Your task to perform on an android device: change keyboard looks Image 0: 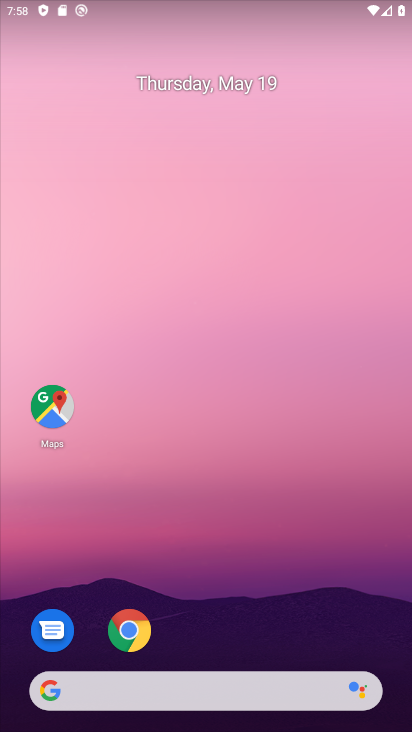
Step 0: drag from (391, 633) to (334, 126)
Your task to perform on an android device: change keyboard looks Image 1: 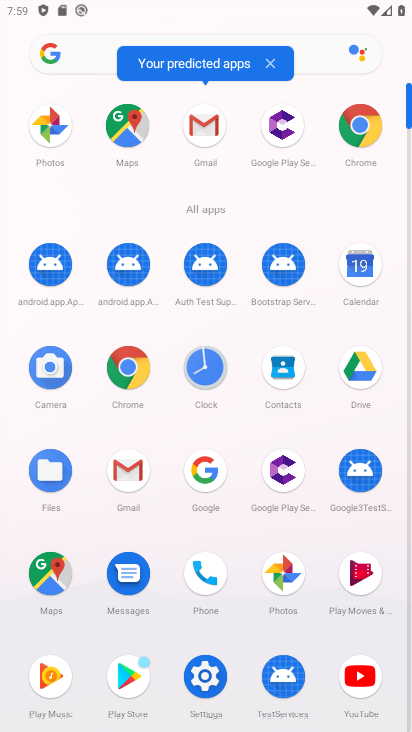
Step 1: click (207, 677)
Your task to perform on an android device: change keyboard looks Image 2: 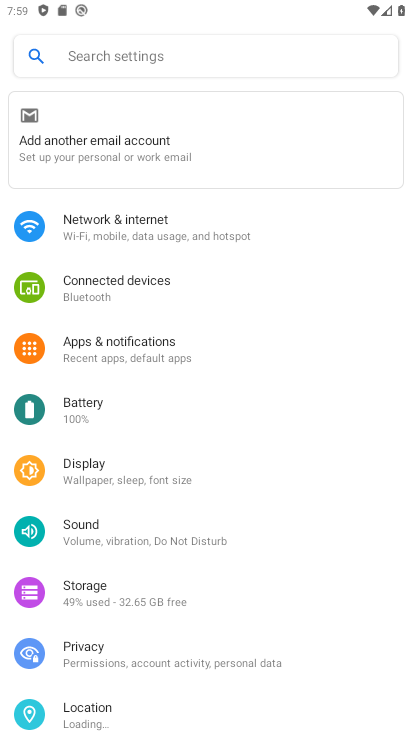
Step 2: drag from (281, 632) to (307, 193)
Your task to perform on an android device: change keyboard looks Image 3: 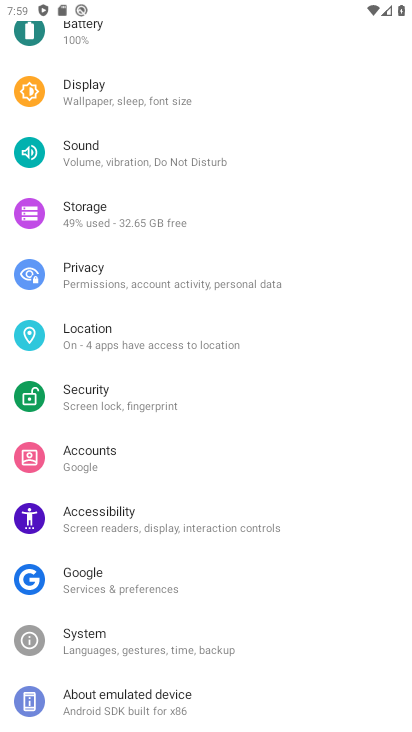
Step 3: drag from (313, 612) to (330, 316)
Your task to perform on an android device: change keyboard looks Image 4: 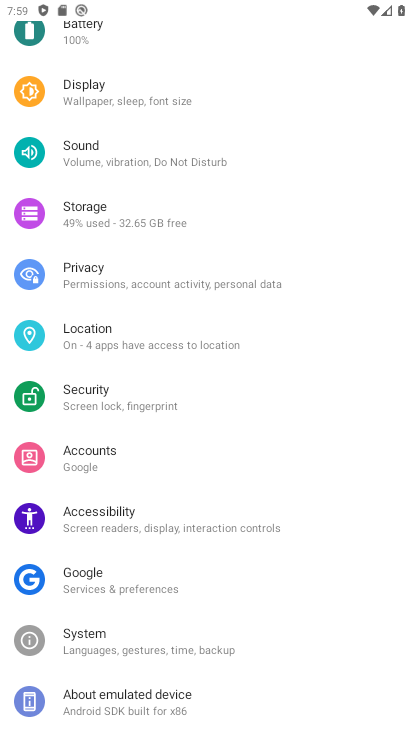
Step 4: click (93, 631)
Your task to perform on an android device: change keyboard looks Image 5: 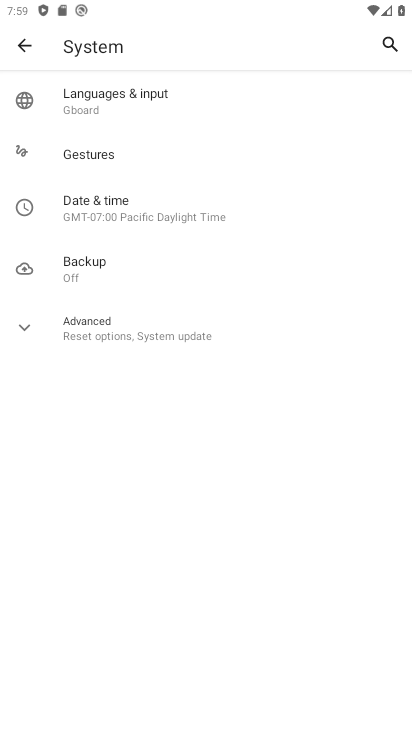
Step 5: click (95, 95)
Your task to perform on an android device: change keyboard looks Image 6: 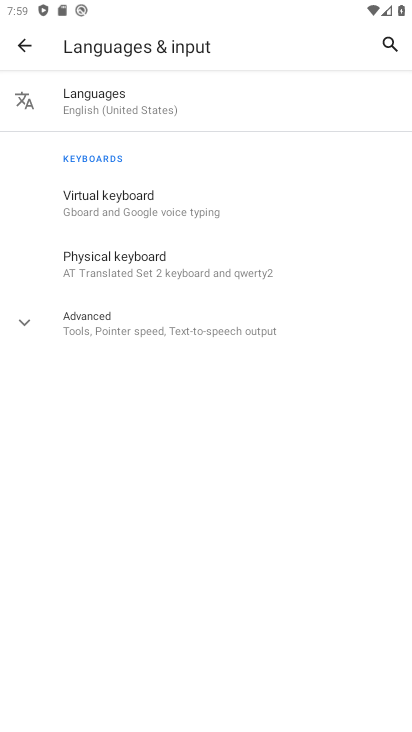
Step 6: click (99, 257)
Your task to perform on an android device: change keyboard looks Image 7: 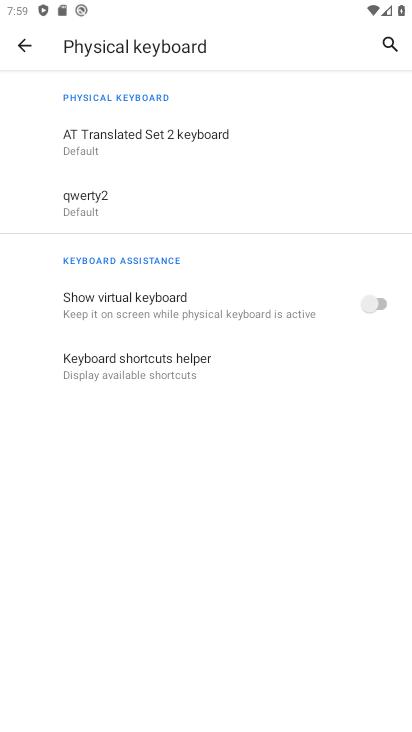
Step 7: click (88, 195)
Your task to perform on an android device: change keyboard looks Image 8: 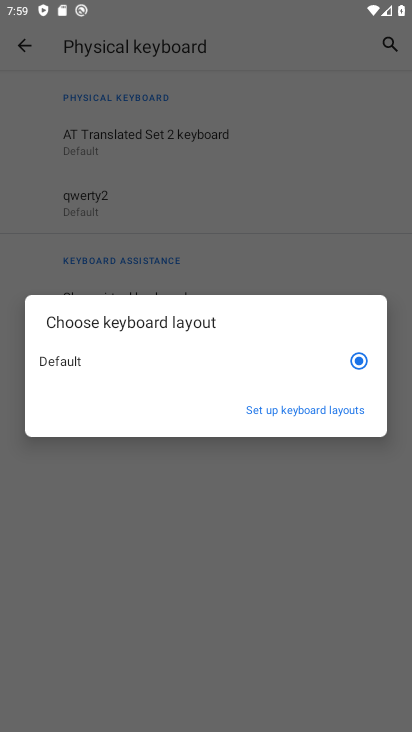
Step 8: click (315, 409)
Your task to perform on an android device: change keyboard looks Image 9: 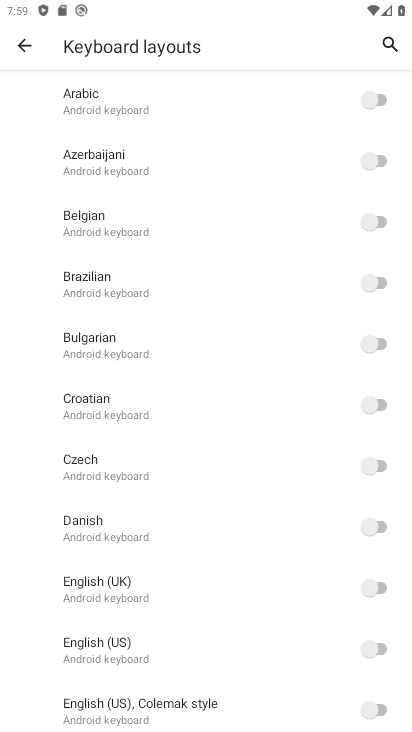
Step 9: click (381, 584)
Your task to perform on an android device: change keyboard looks Image 10: 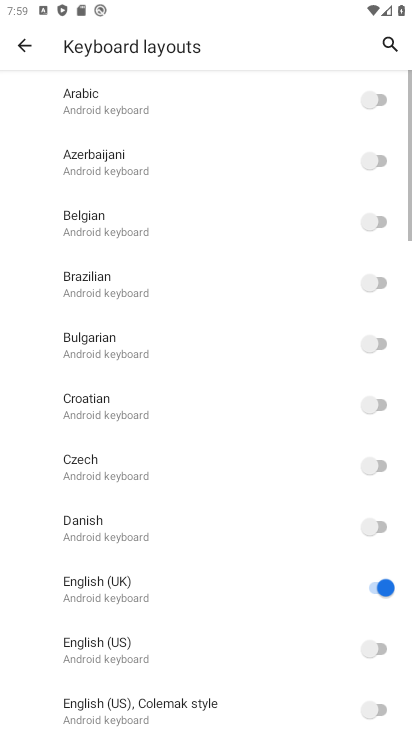
Step 10: task complete